Your task to perform on an android device: See recent photos Image 0: 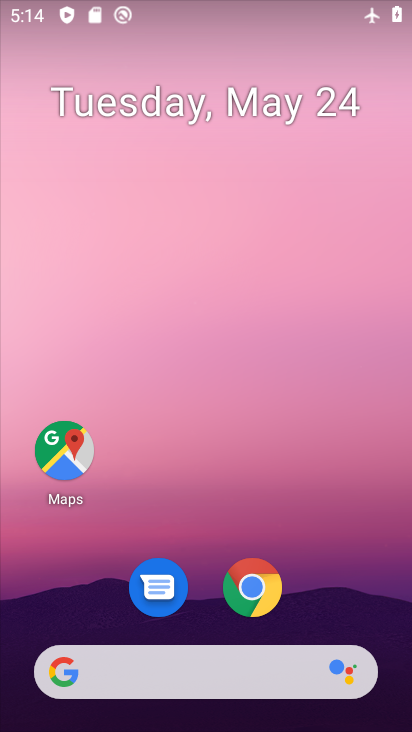
Step 0: drag from (341, 552) to (190, 52)
Your task to perform on an android device: See recent photos Image 1: 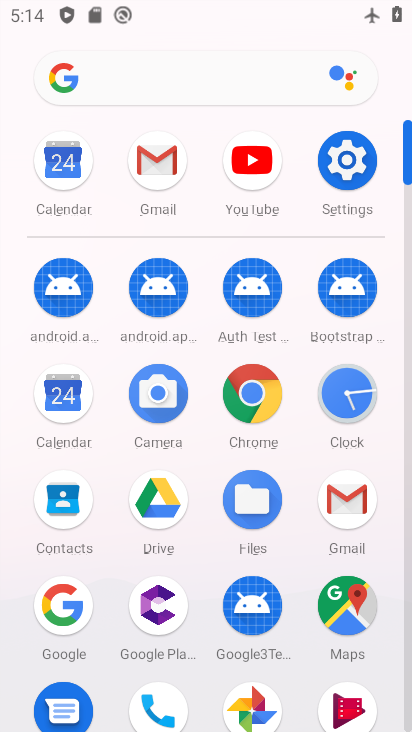
Step 1: click (353, 169)
Your task to perform on an android device: See recent photos Image 2: 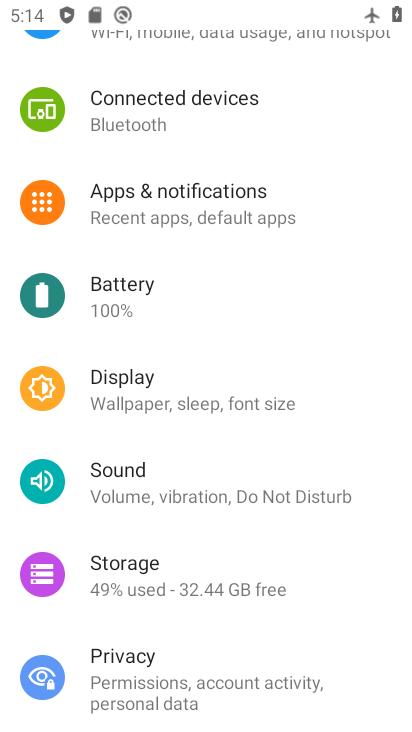
Step 2: click (211, 44)
Your task to perform on an android device: See recent photos Image 3: 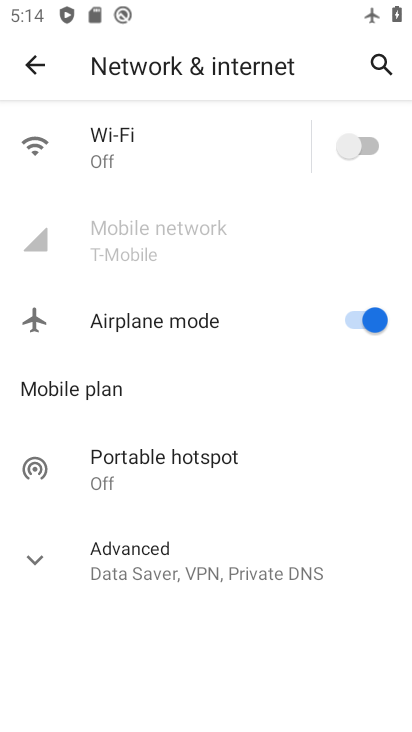
Step 3: click (363, 140)
Your task to perform on an android device: See recent photos Image 4: 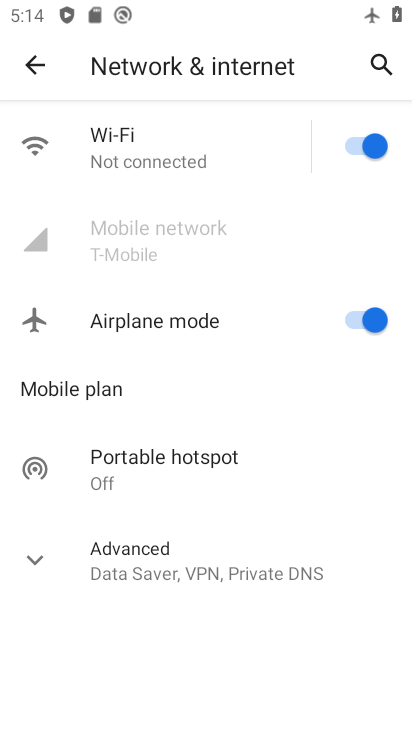
Step 4: press home button
Your task to perform on an android device: See recent photos Image 5: 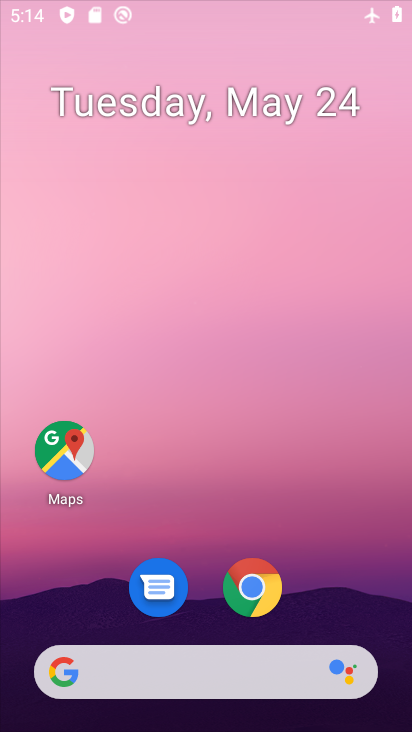
Step 5: drag from (260, 611) to (151, 74)
Your task to perform on an android device: See recent photos Image 6: 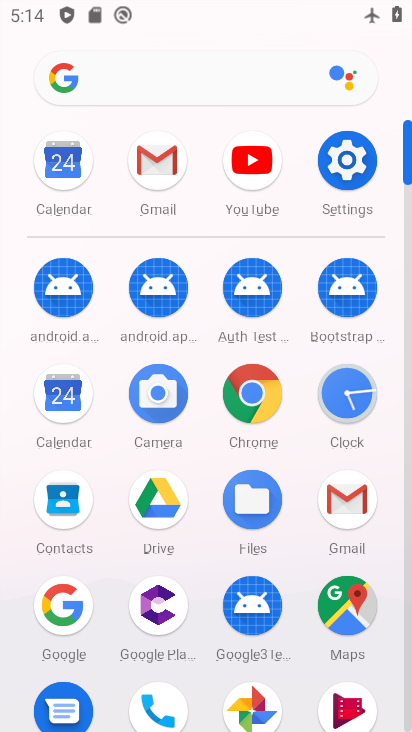
Step 6: click (51, 625)
Your task to perform on an android device: See recent photos Image 7: 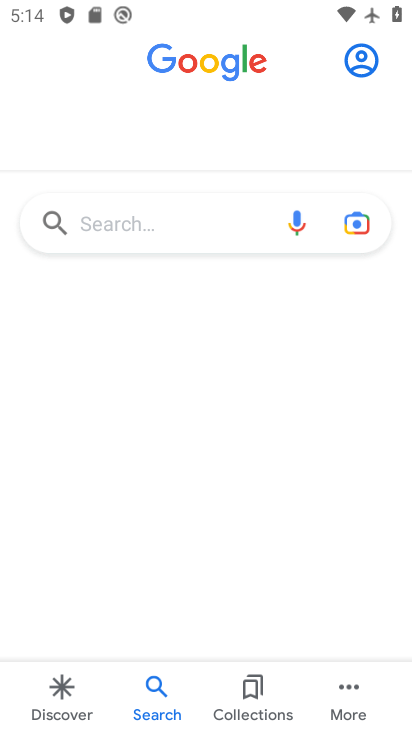
Step 7: click (81, 708)
Your task to perform on an android device: See recent photos Image 8: 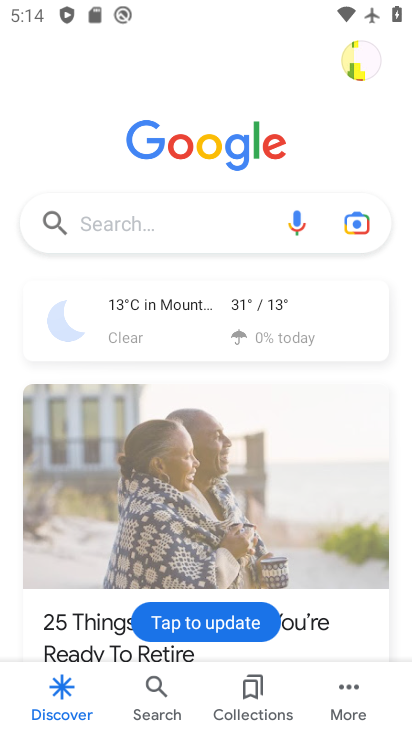
Step 8: click (179, 229)
Your task to perform on an android device: See recent photos Image 9: 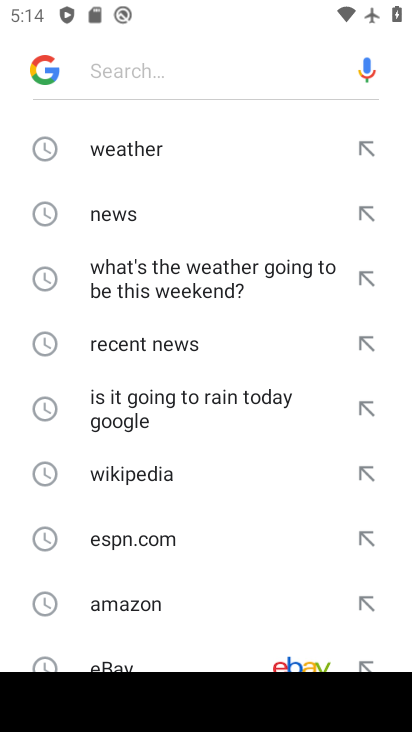
Step 9: click (164, 343)
Your task to perform on an android device: See recent photos Image 10: 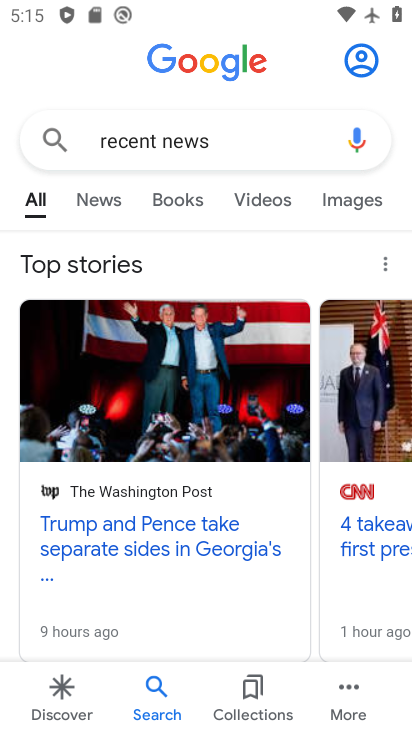
Step 10: task complete